Your task to perform on an android device: change the upload size in google photos Image 0: 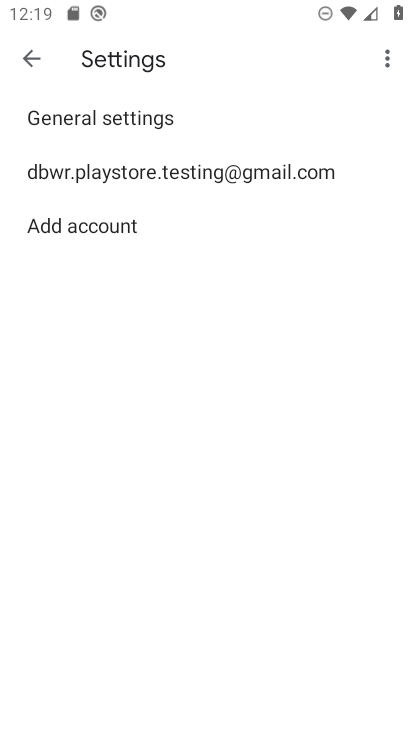
Step 0: press home button
Your task to perform on an android device: change the upload size in google photos Image 1: 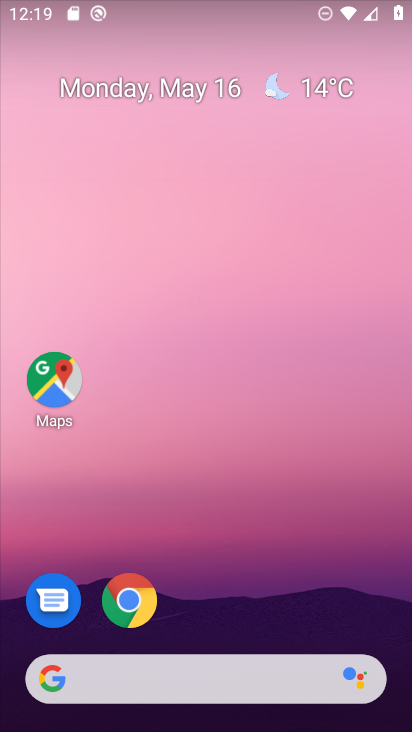
Step 1: drag from (389, 633) to (316, 10)
Your task to perform on an android device: change the upload size in google photos Image 2: 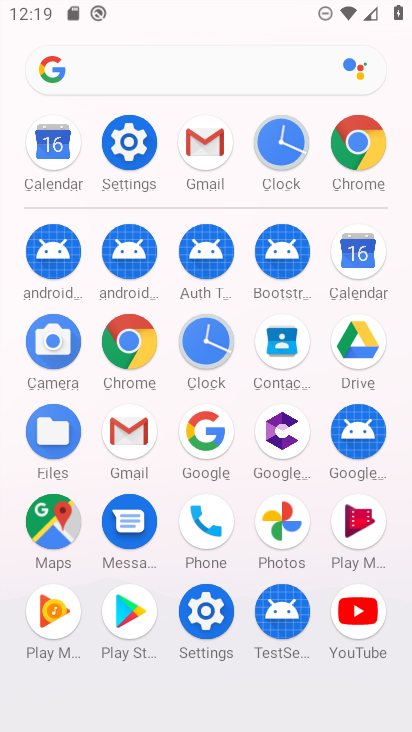
Step 2: click (283, 523)
Your task to perform on an android device: change the upload size in google photos Image 3: 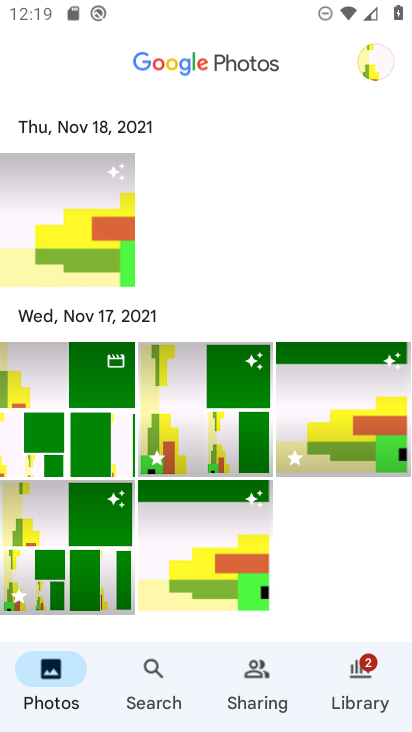
Step 3: click (372, 71)
Your task to perform on an android device: change the upload size in google photos Image 4: 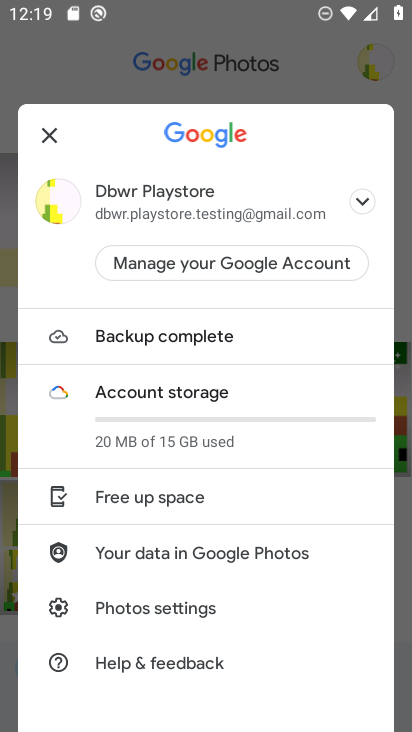
Step 4: click (186, 613)
Your task to perform on an android device: change the upload size in google photos Image 5: 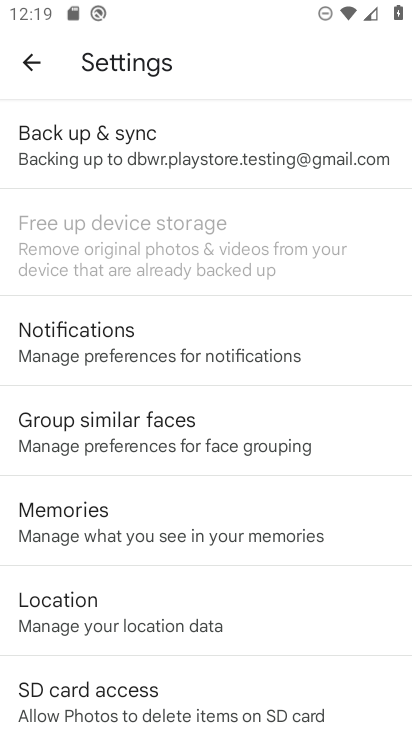
Step 5: click (98, 146)
Your task to perform on an android device: change the upload size in google photos Image 6: 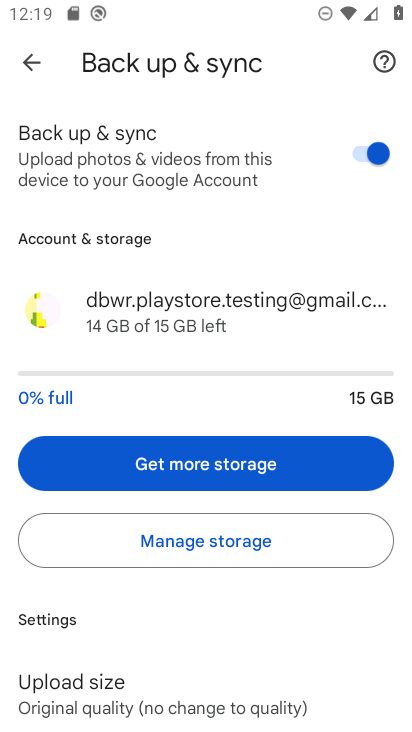
Step 6: drag from (299, 645) to (289, 147)
Your task to perform on an android device: change the upload size in google photos Image 7: 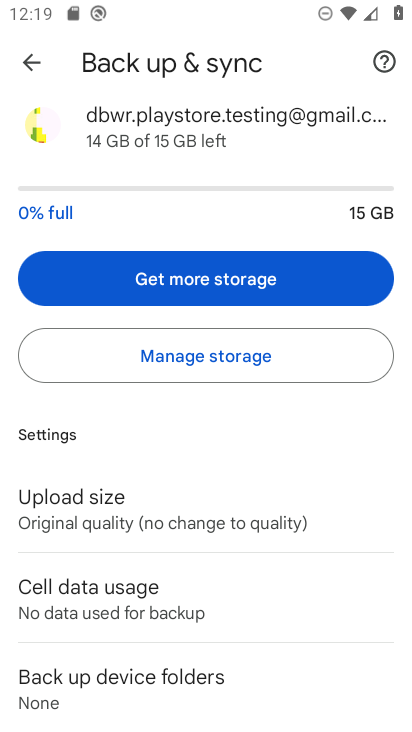
Step 7: click (43, 511)
Your task to perform on an android device: change the upload size in google photos Image 8: 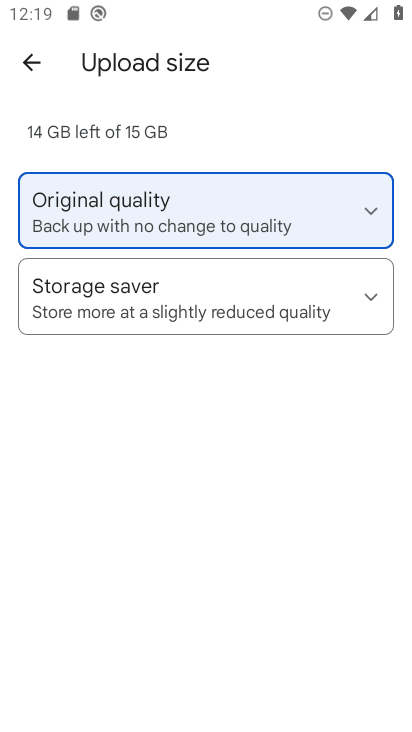
Step 8: click (368, 293)
Your task to perform on an android device: change the upload size in google photos Image 9: 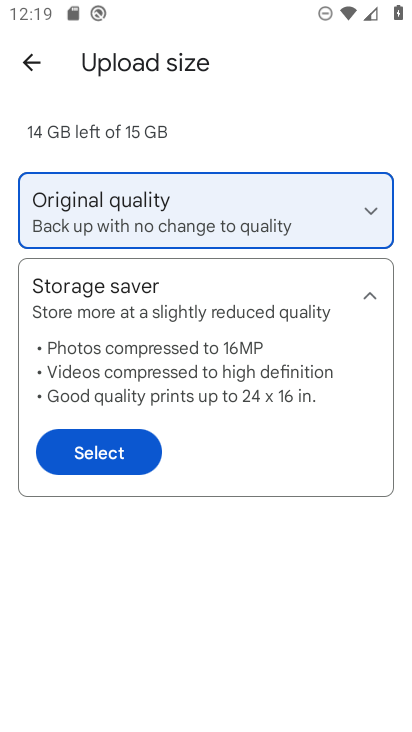
Step 9: click (84, 454)
Your task to perform on an android device: change the upload size in google photos Image 10: 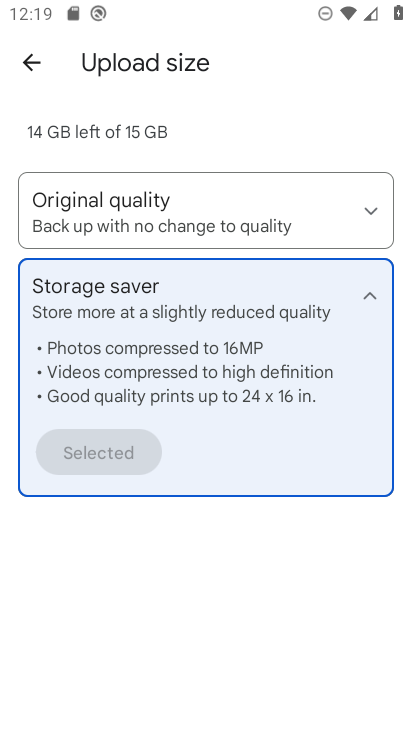
Step 10: task complete